Your task to perform on an android device: Open Google Chrome Image 0: 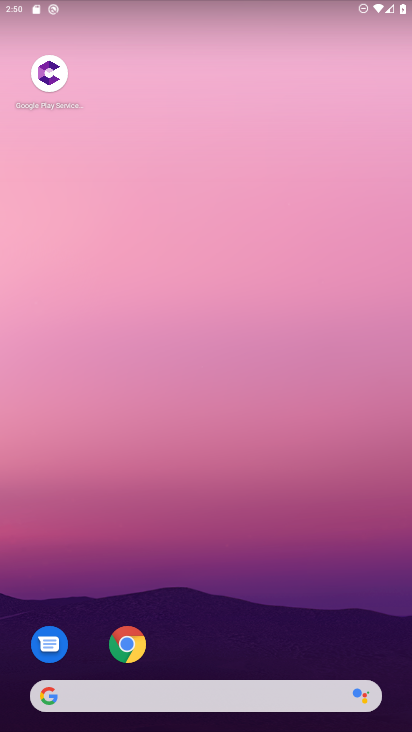
Step 0: click (129, 642)
Your task to perform on an android device: Open Google Chrome Image 1: 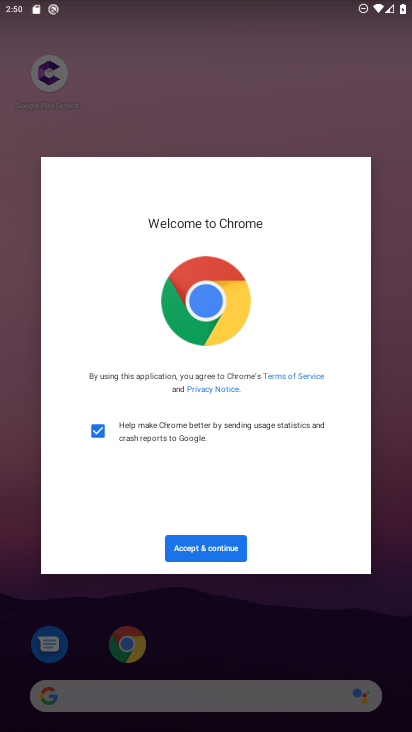
Step 1: click (199, 540)
Your task to perform on an android device: Open Google Chrome Image 2: 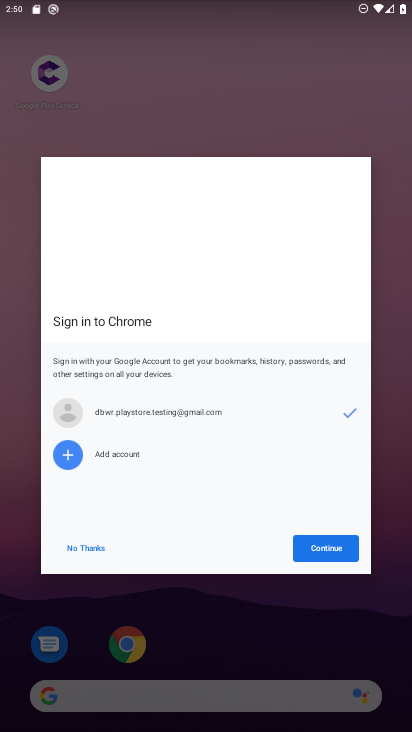
Step 2: click (325, 552)
Your task to perform on an android device: Open Google Chrome Image 3: 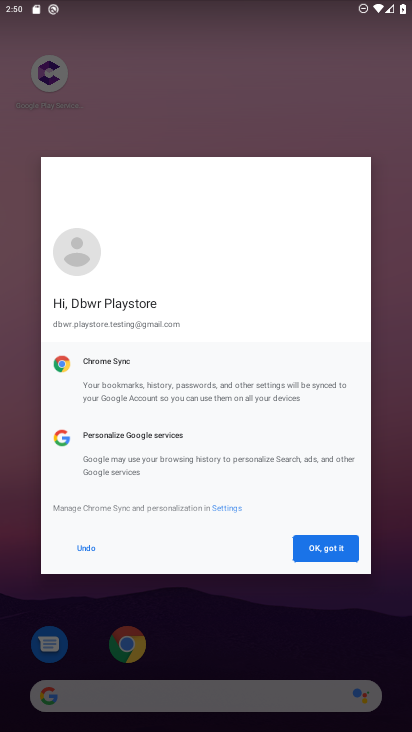
Step 3: click (325, 552)
Your task to perform on an android device: Open Google Chrome Image 4: 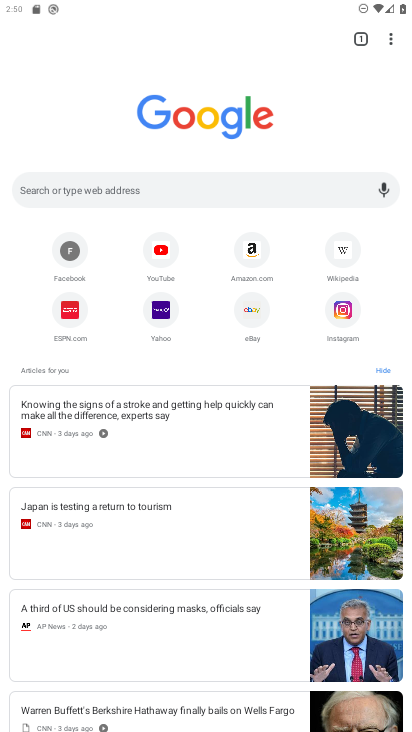
Step 4: task complete